Your task to perform on an android device: What's the US dollar exchange rate against the Euro? Image 0: 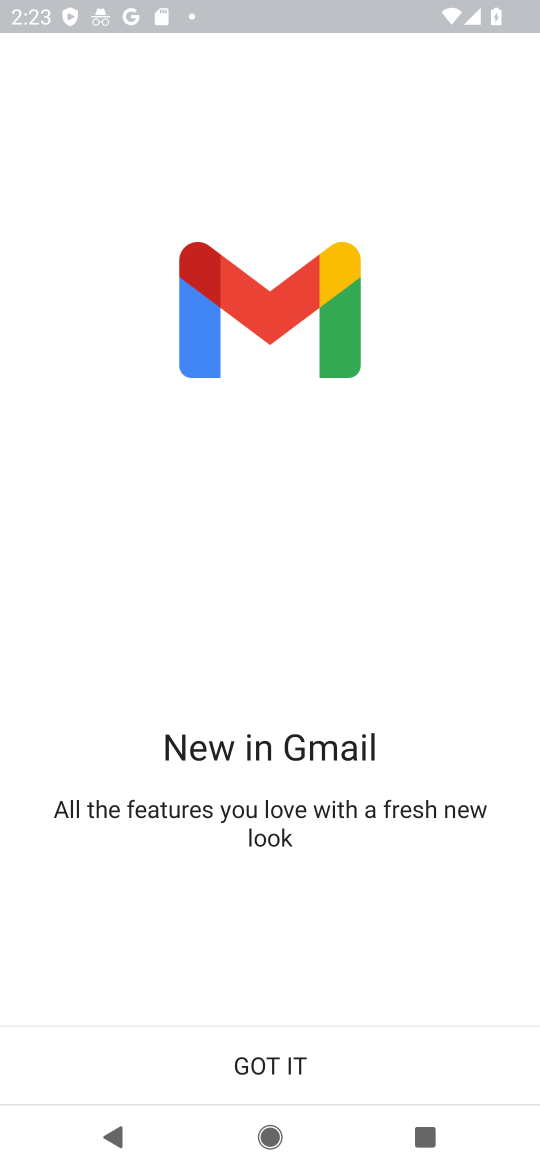
Step 0: press back button
Your task to perform on an android device: What's the US dollar exchange rate against the Euro? Image 1: 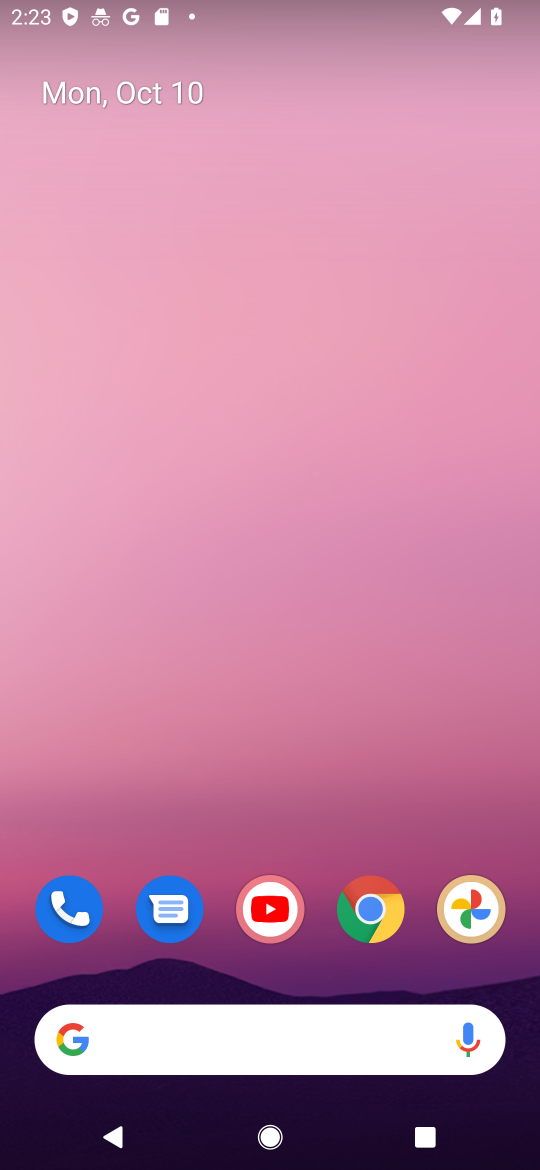
Step 1: click (371, 912)
Your task to perform on an android device: What's the US dollar exchange rate against the Euro? Image 2: 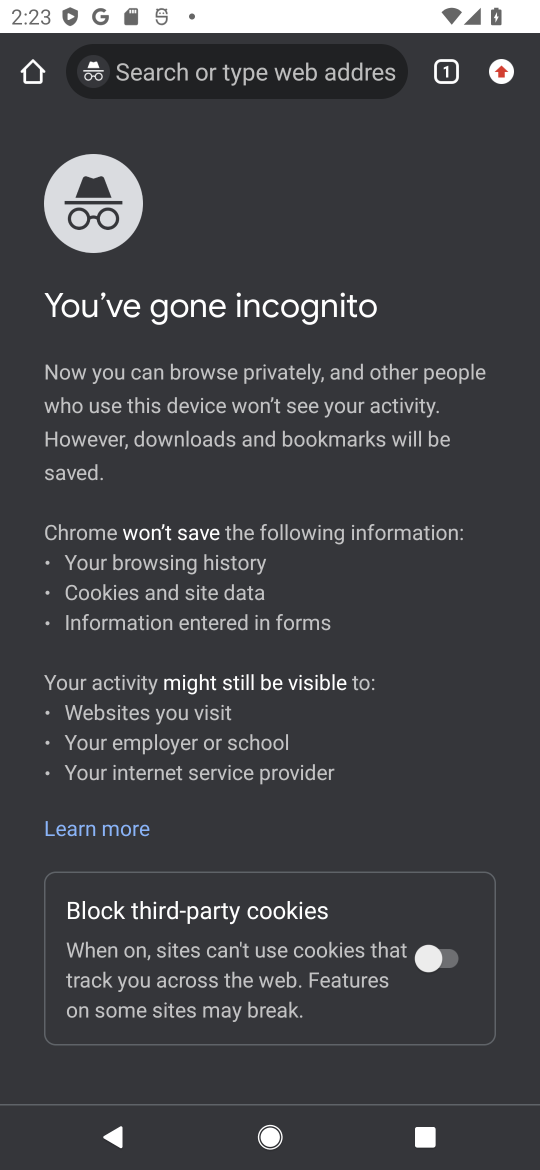
Step 2: click (442, 82)
Your task to perform on an android device: What's the US dollar exchange rate against the Euro? Image 3: 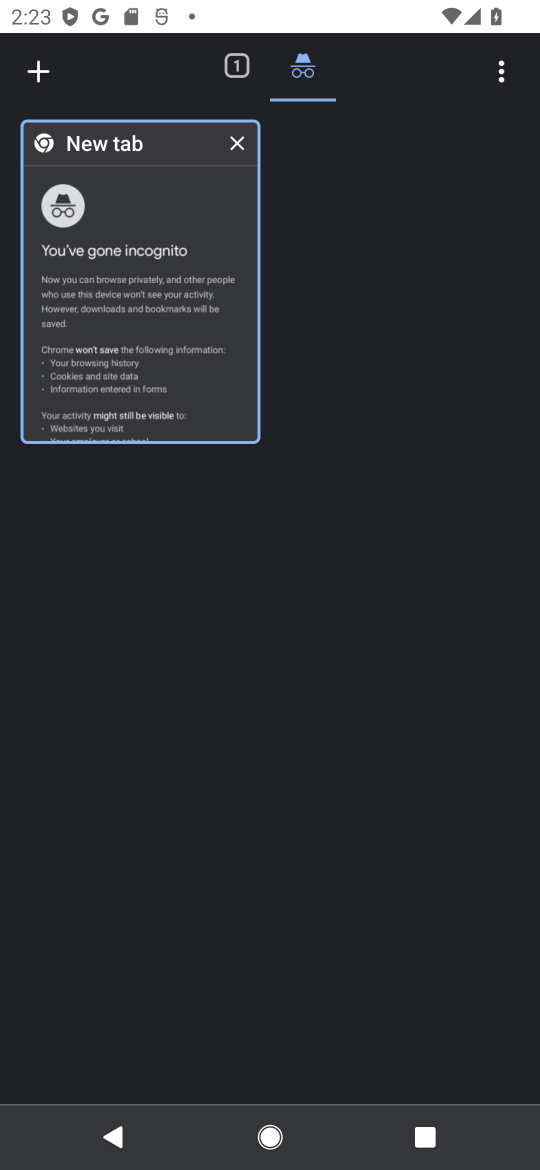
Step 3: click (38, 60)
Your task to perform on an android device: What's the US dollar exchange rate against the Euro? Image 4: 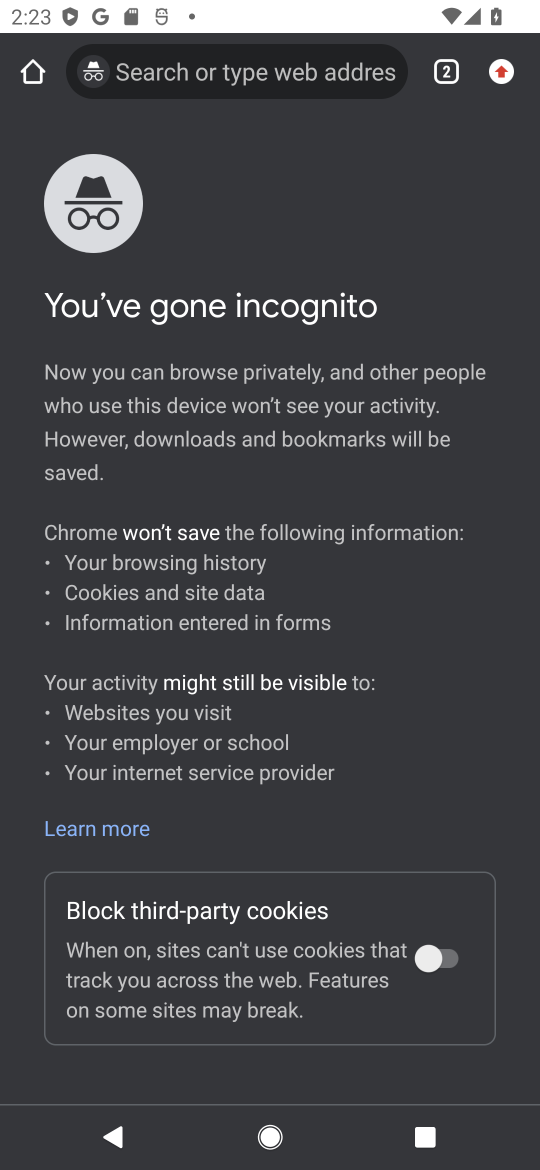
Step 4: click (448, 74)
Your task to perform on an android device: What's the US dollar exchange rate against the Euro? Image 5: 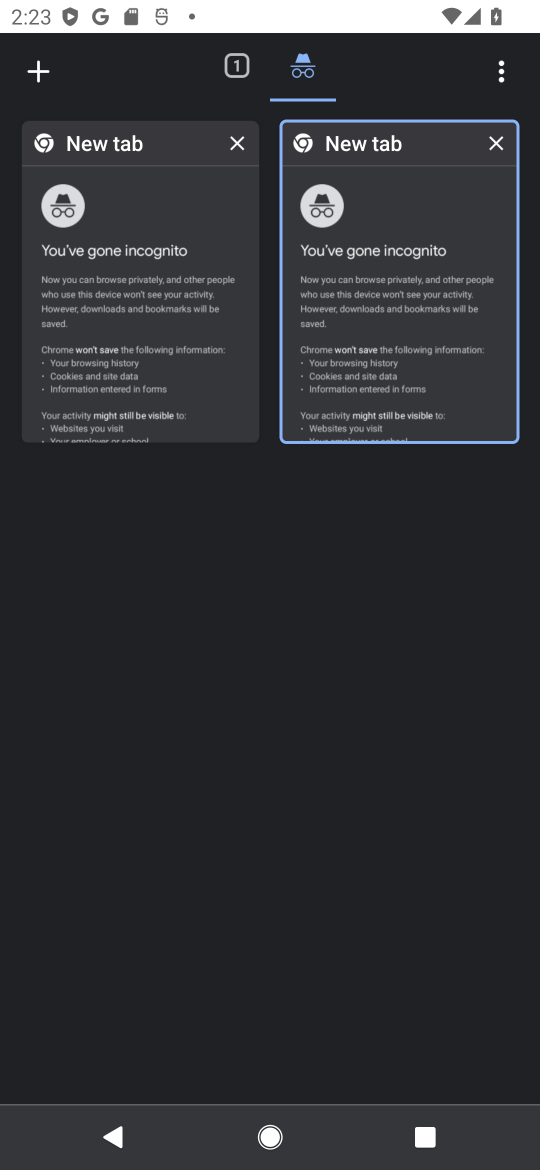
Step 5: click (238, 62)
Your task to perform on an android device: What's the US dollar exchange rate against the Euro? Image 6: 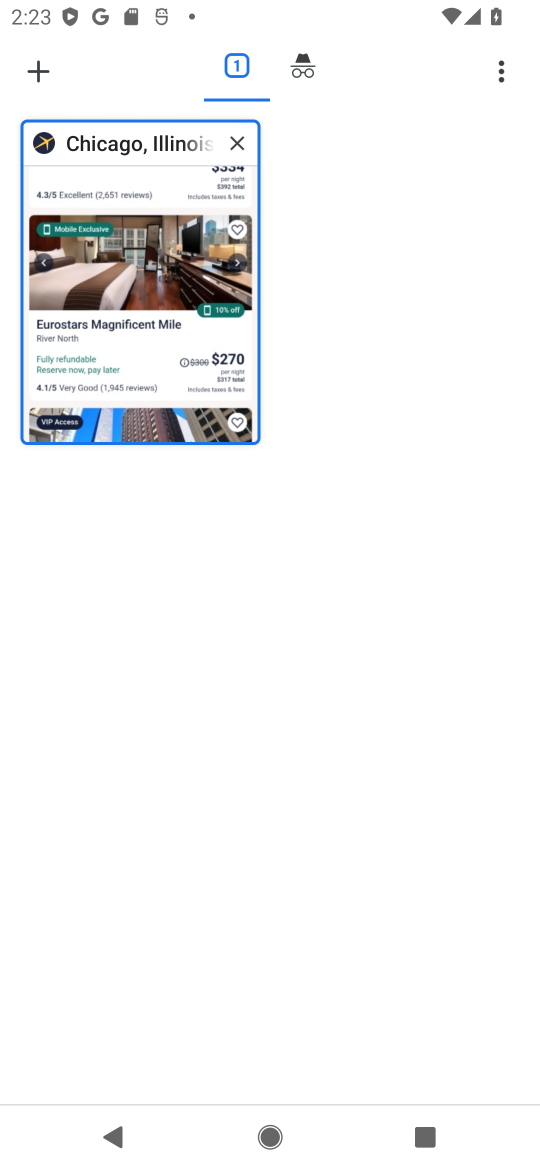
Step 6: click (47, 63)
Your task to perform on an android device: What's the US dollar exchange rate against the Euro? Image 7: 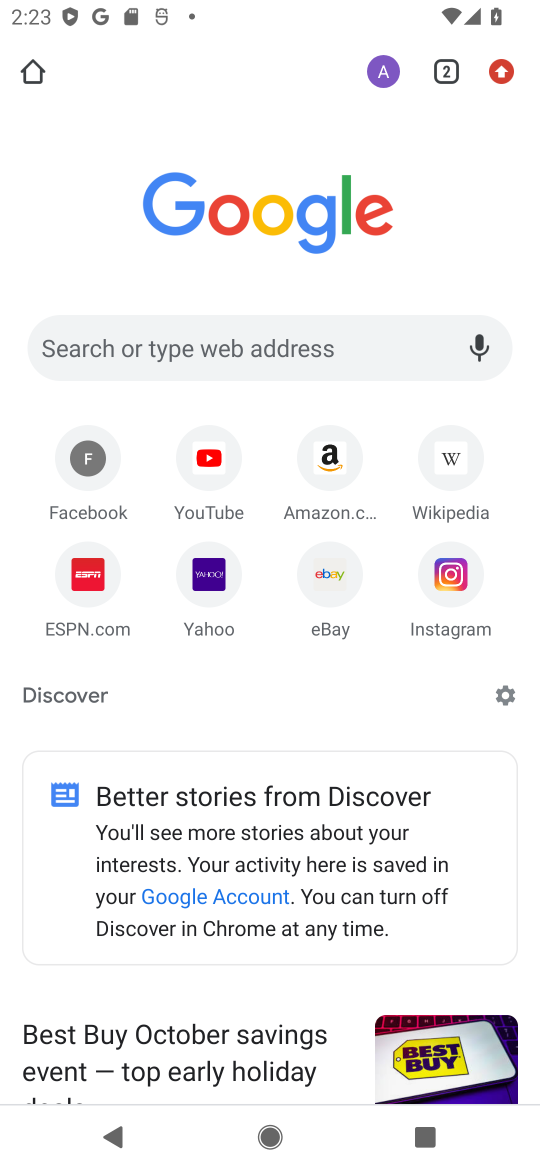
Step 7: click (147, 350)
Your task to perform on an android device: What's the US dollar exchange rate against the Euro? Image 8: 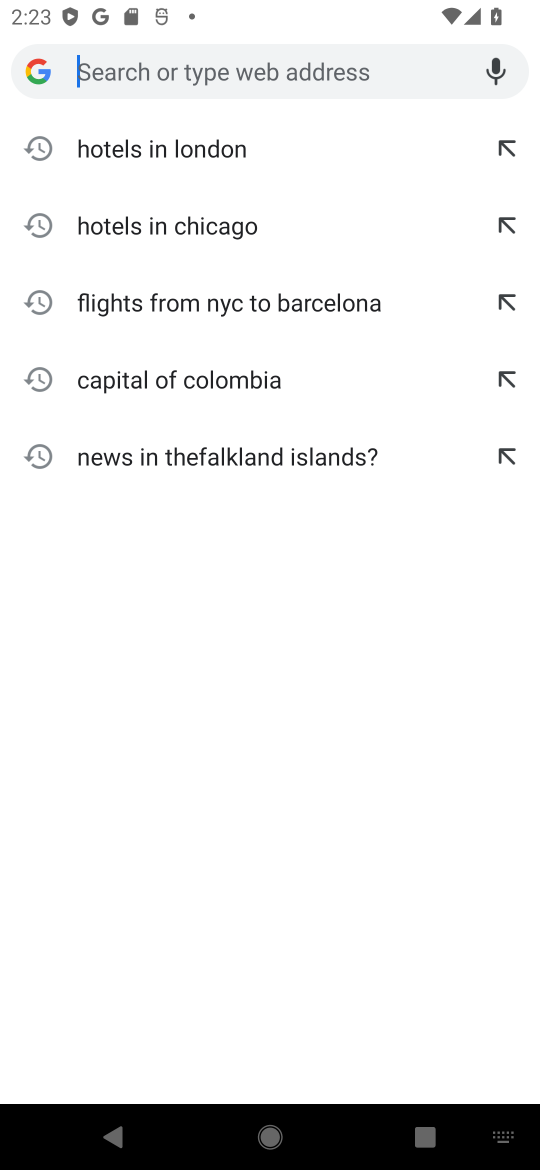
Step 8: type "US dollar exchange rate against the Euro?"
Your task to perform on an android device: What's the US dollar exchange rate against the Euro? Image 9: 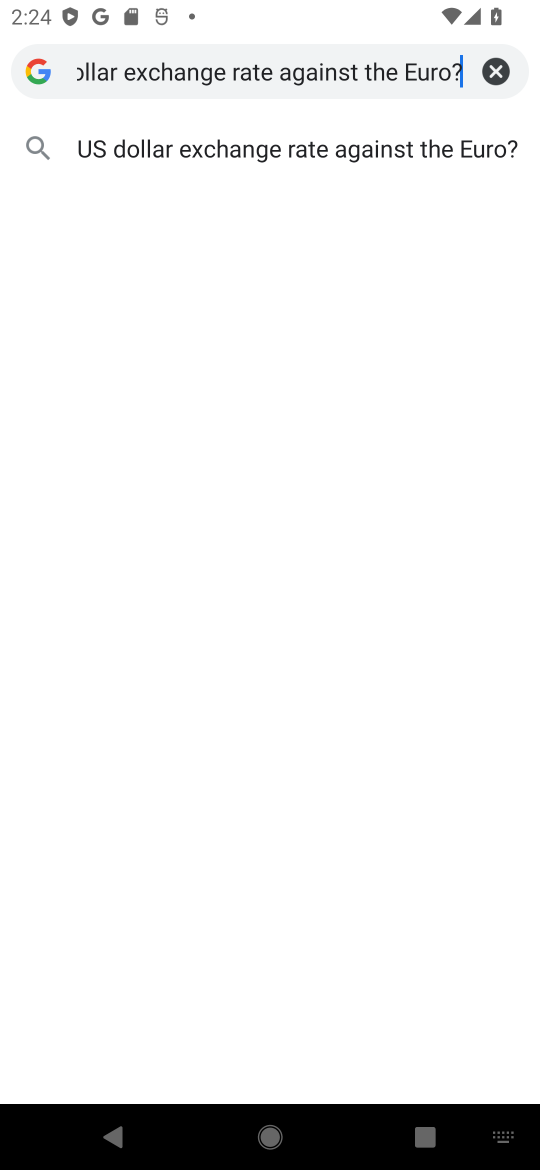
Step 9: click (224, 151)
Your task to perform on an android device: What's the US dollar exchange rate against the Euro? Image 10: 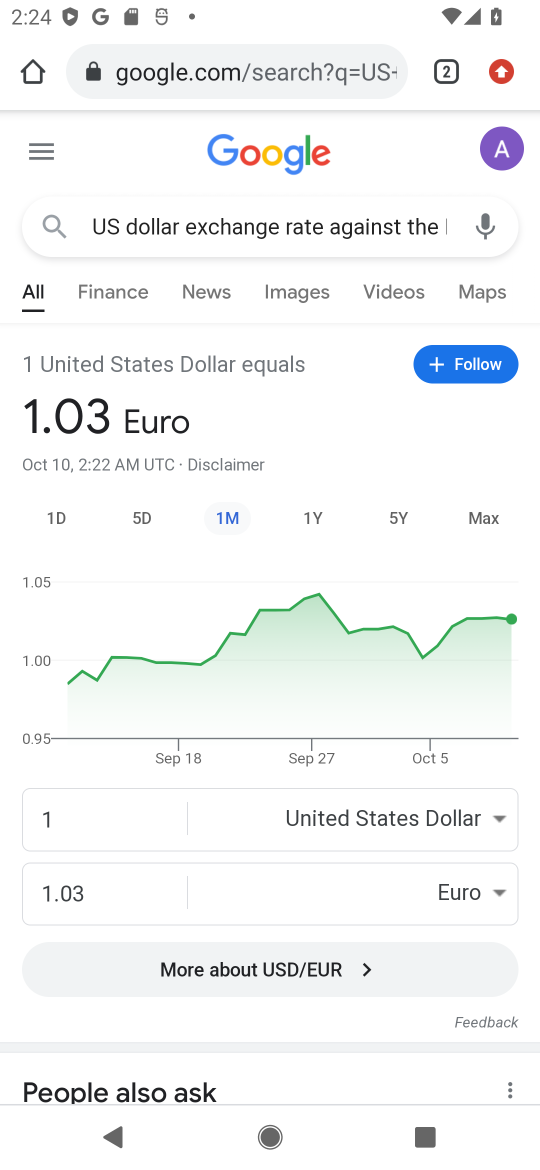
Step 10: task complete